Your task to perform on an android device: Open calendar and show me the second week of next month Image 0: 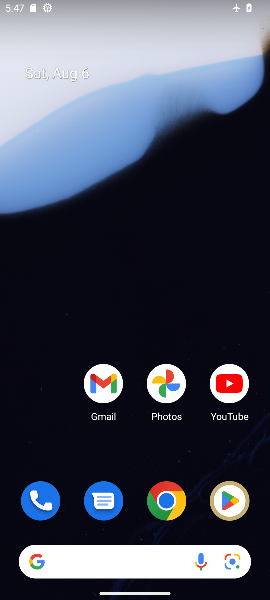
Step 0: drag from (132, 296) to (104, 156)
Your task to perform on an android device: Open calendar and show me the second week of next month Image 1: 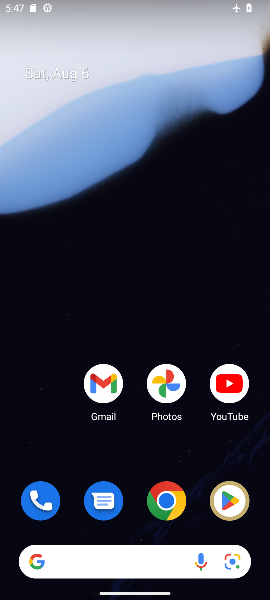
Step 1: drag from (161, 259) to (205, 33)
Your task to perform on an android device: Open calendar and show me the second week of next month Image 2: 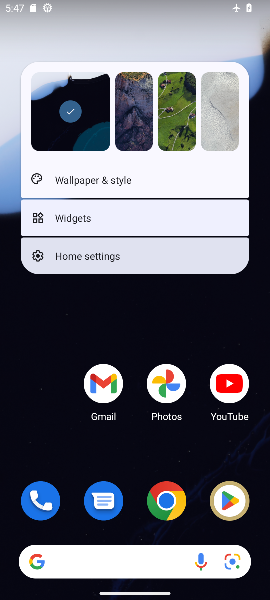
Step 2: drag from (145, 148) to (152, 25)
Your task to perform on an android device: Open calendar and show me the second week of next month Image 3: 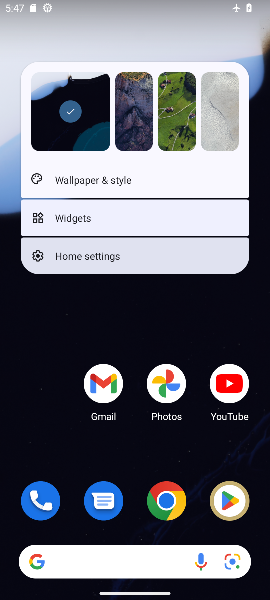
Step 3: press home button
Your task to perform on an android device: Open calendar and show me the second week of next month Image 4: 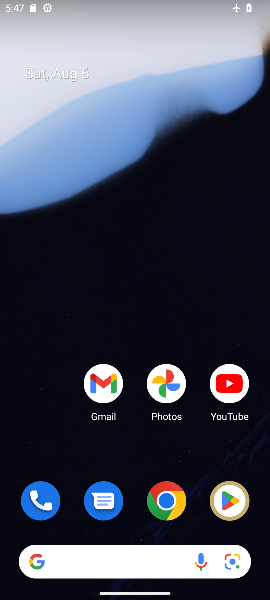
Step 4: drag from (65, 465) to (83, 98)
Your task to perform on an android device: Open calendar and show me the second week of next month Image 5: 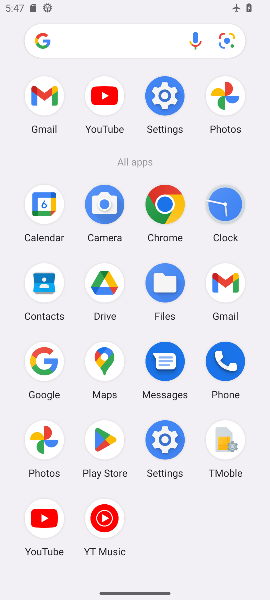
Step 5: click (38, 206)
Your task to perform on an android device: Open calendar and show me the second week of next month Image 6: 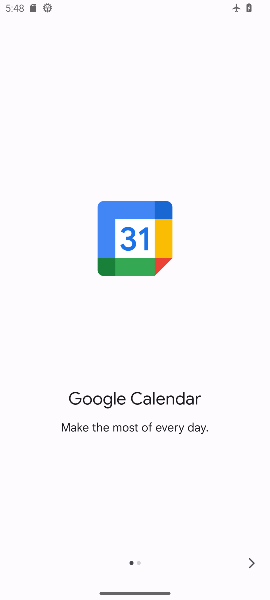
Step 6: click (253, 566)
Your task to perform on an android device: Open calendar and show me the second week of next month Image 7: 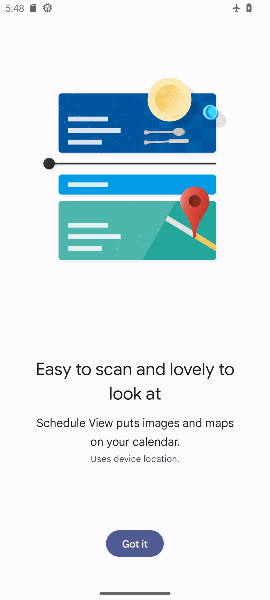
Step 7: click (150, 546)
Your task to perform on an android device: Open calendar and show me the second week of next month Image 8: 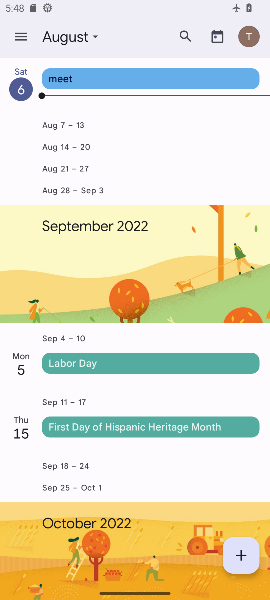
Step 8: click (19, 36)
Your task to perform on an android device: Open calendar and show me the second week of next month Image 9: 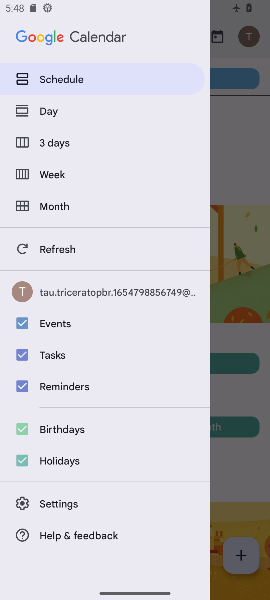
Step 9: click (55, 171)
Your task to perform on an android device: Open calendar and show me the second week of next month Image 10: 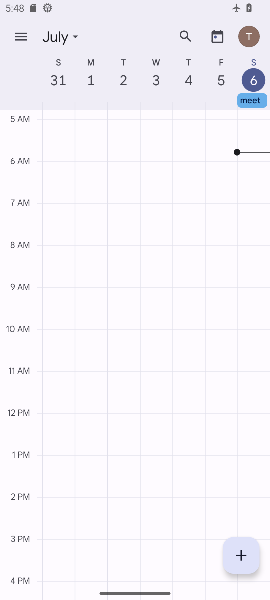
Step 10: click (73, 39)
Your task to perform on an android device: Open calendar and show me the second week of next month Image 11: 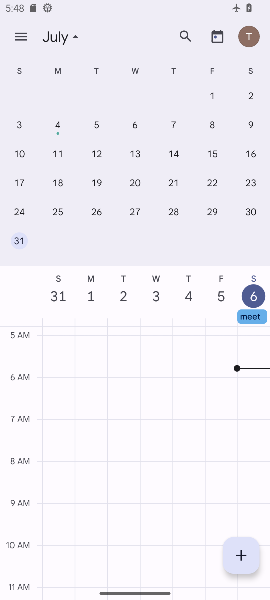
Step 11: drag from (260, 174) to (4, 161)
Your task to perform on an android device: Open calendar and show me the second week of next month Image 12: 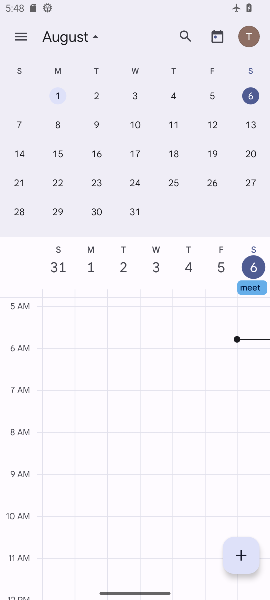
Step 12: drag from (264, 135) to (13, 148)
Your task to perform on an android device: Open calendar and show me the second week of next month Image 13: 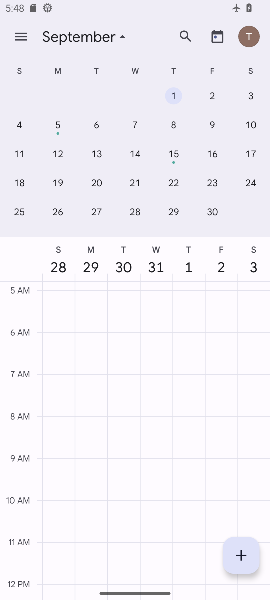
Step 13: click (169, 147)
Your task to perform on an android device: Open calendar and show me the second week of next month Image 14: 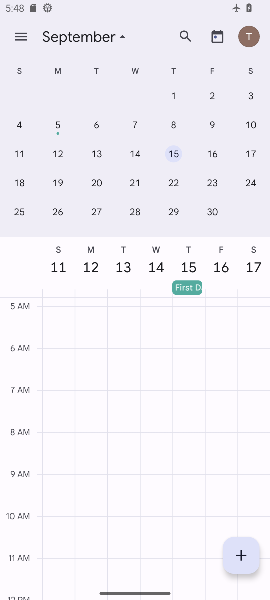
Step 14: task complete